Your task to perform on an android device: turn off priority inbox in the gmail app Image 0: 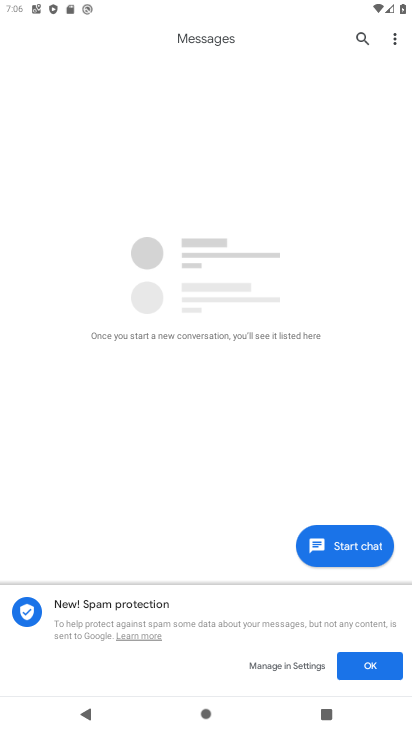
Step 0: press home button
Your task to perform on an android device: turn off priority inbox in the gmail app Image 1: 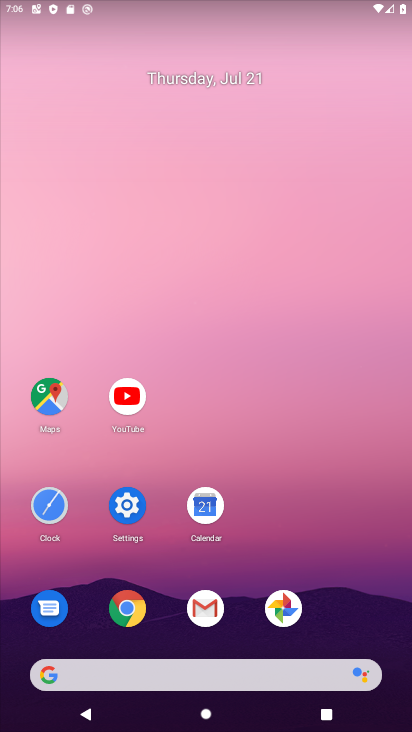
Step 1: click (194, 608)
Your task to perform on an android device: turn off priority inbox in the gmail app Image 2: 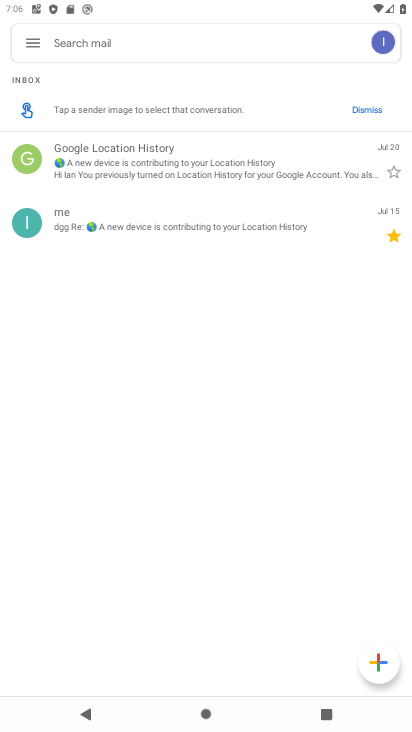
Step 2: click (29, 42)
Your task to perform on an android device: turn off priority inbox in the gmail app Image 3: 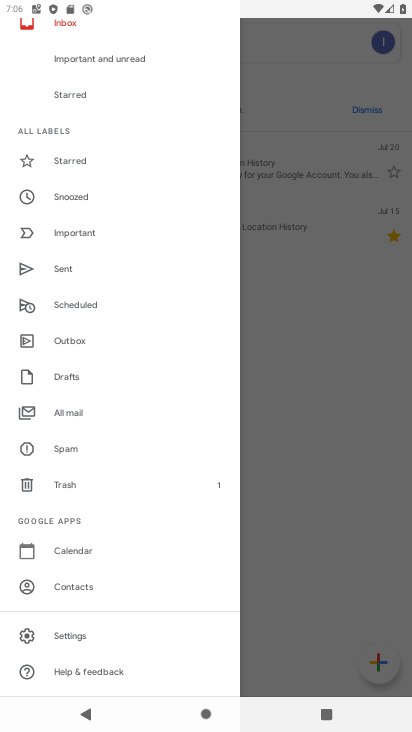
Step 3: click (74, 635)
Your task to perform on an android device: turn off priority inbox in the gmail app Image 4: 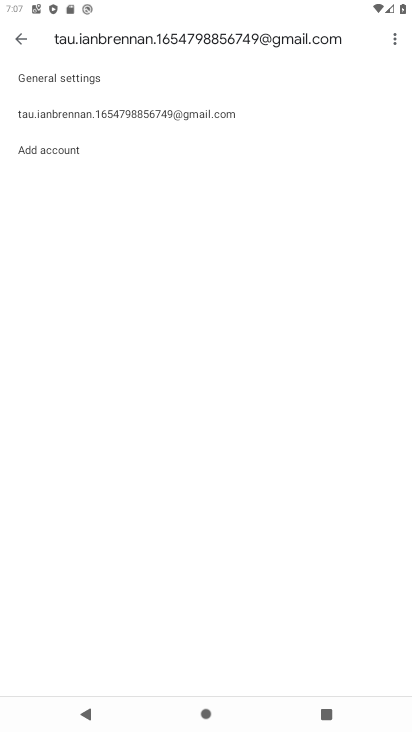
Step 4: click (85, 108)
Your task to perform on an android device: turn off priority inbox in the gmail app Image 5: 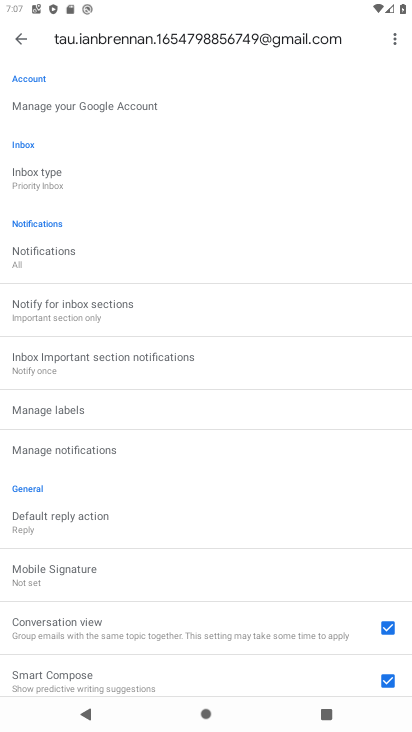
Step 5: click (40, 172)
Your task to perform on an android device: turn off priority inbox in the gmail app Image 6: 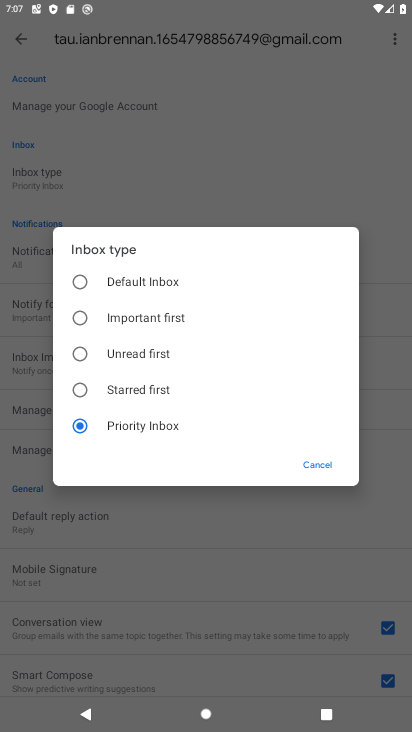
Step 6: click (80, 281)
Your task to perform on an android device: turn off priority inbox in the gmail app Image 7: 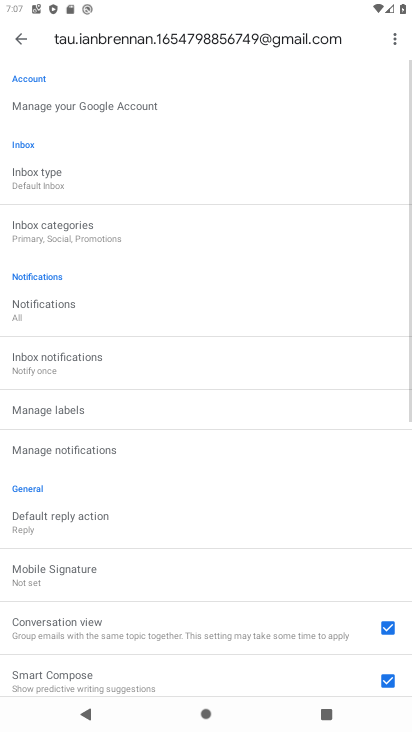
Step 7: task complete